Your task to perform on an android device: Go to calendar. Show me events next week Image 0: 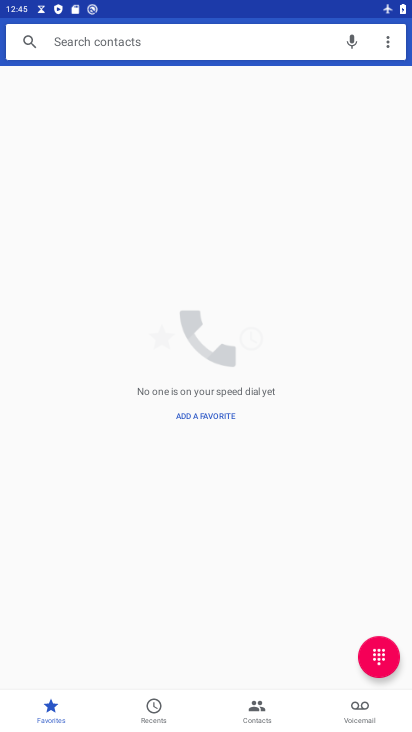
Step 0: press home button
Your task to perform on an android device: Go to calendar. Show me events next week Image 1: 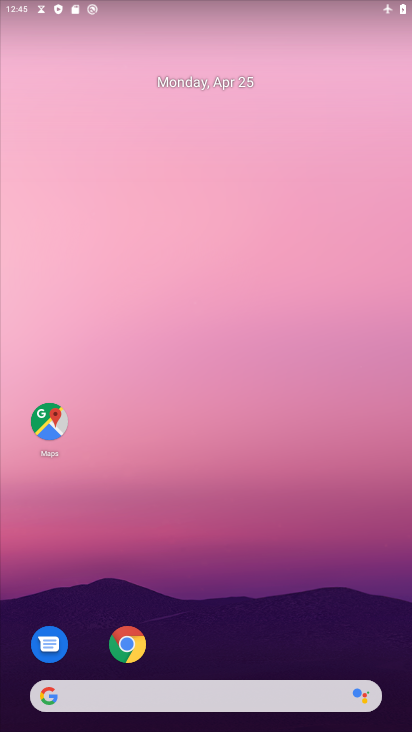
Step 1: drag from (349, 654) to (355, 13)
Your task to perform on an android device: Go to calendar. Show me events next week Image 2: 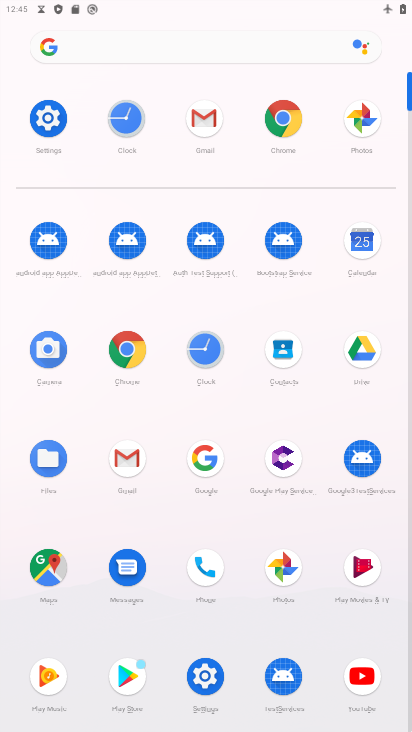
Step 2: click (358, 248)
Your task to perform on an android device: Go to calendar. Show me events next week Image 3: 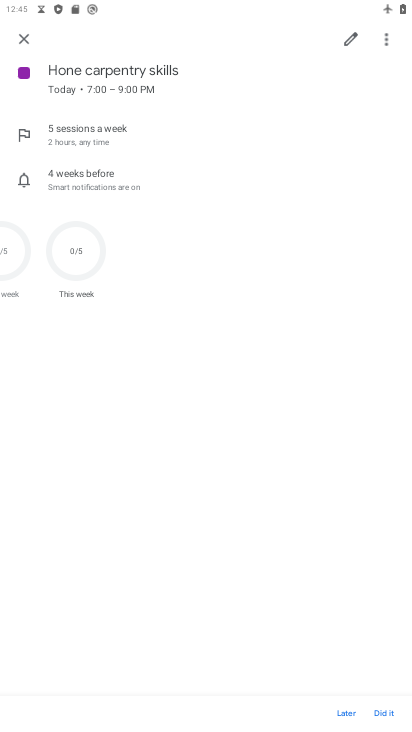
Step 3: click (20, 44)
Your task to perform on an android device: Go to calendar. Show me events next week Image 4: 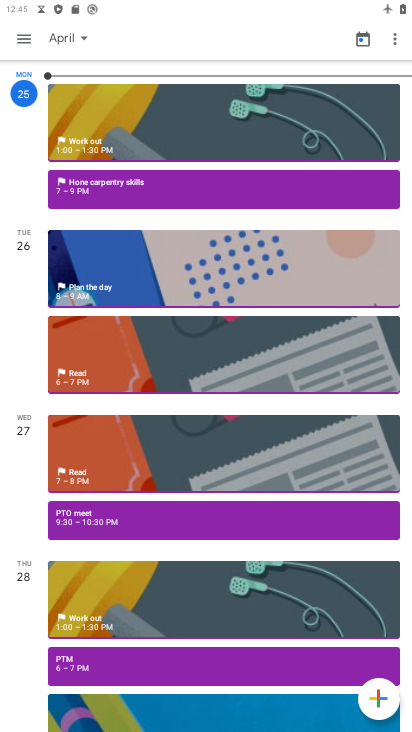
Step 4: click (87, 33)
Your task to perform on an android device: Go to calendar. Show me events next week Image 5: 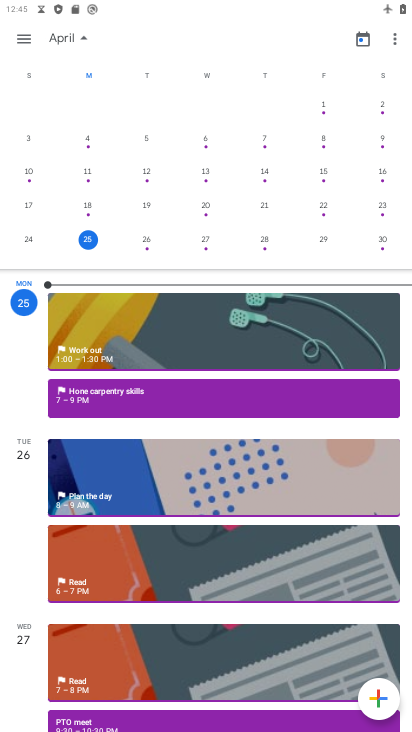
Step 5: drag from (342, 190) to (1, 81)
Your task to perform on an android device: Go to calendar. Show me events next week Image 6: 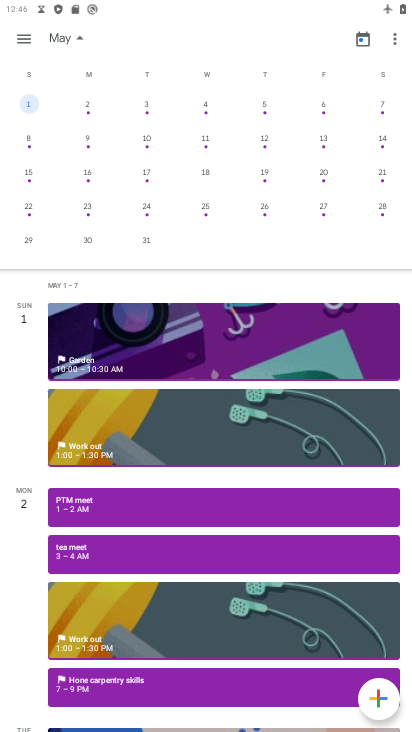
Step 6: click (23, 42)
Your task to perform on an android device: Go to calendar. Show me events next week Image 7: 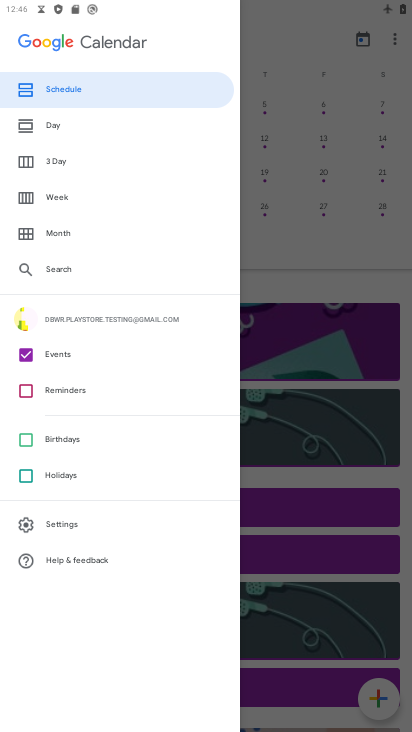
Step 7: click (38, 205)
Your task to perform on an android device: Go to calendar. Show me events next week Image 8: 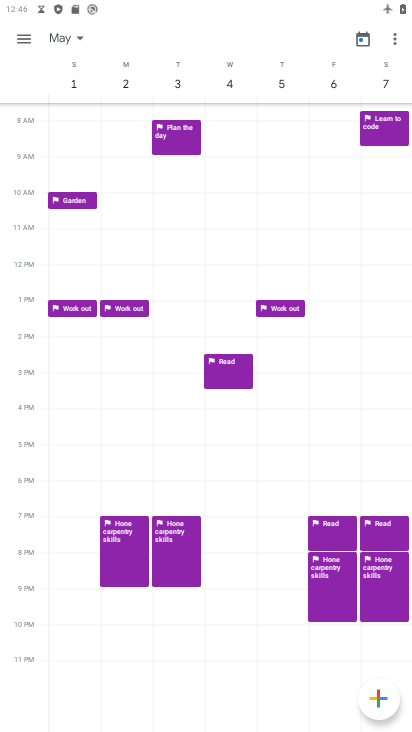
Step 8: task complete